Your task to perform on an android device: turn vacation reply on in the gmail app Image 0: 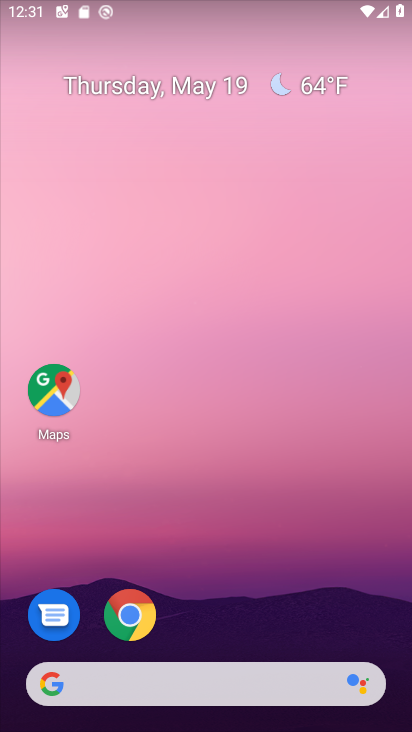
Step 0: drag from (354, 186) to (259, 208)
Your task to perform on an android device: turn vacation reply on in the gmail app Image 1: 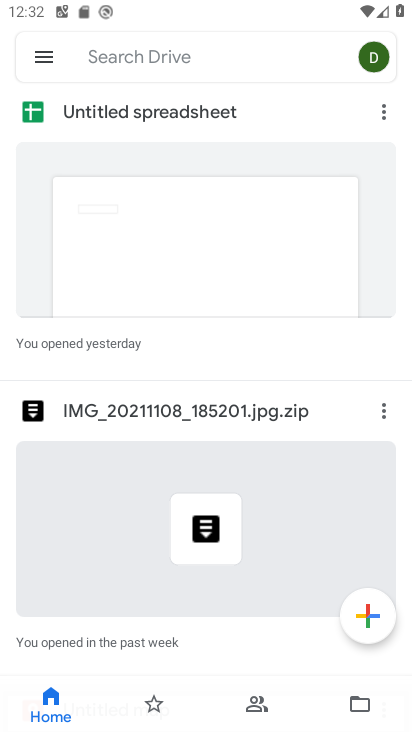
Step 1: press home button
Your task to perform on an android device: turn vacation reply on in the gmail app Image 2: 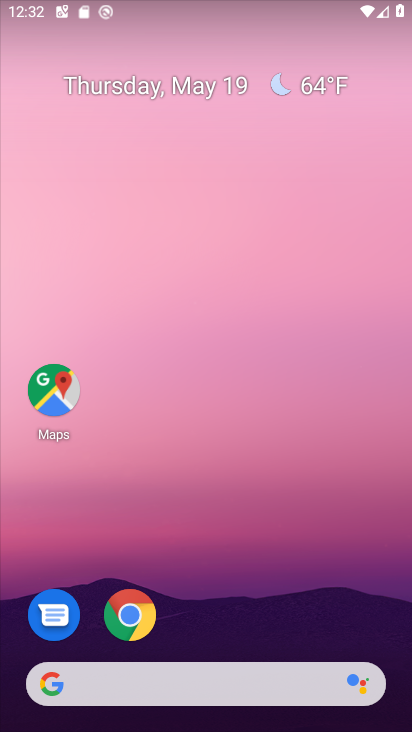
Step 2: drag from (237, 692) to (329, 93)
Your task to perform on an android device: turn vacation reply on in the gmail app Image 3: 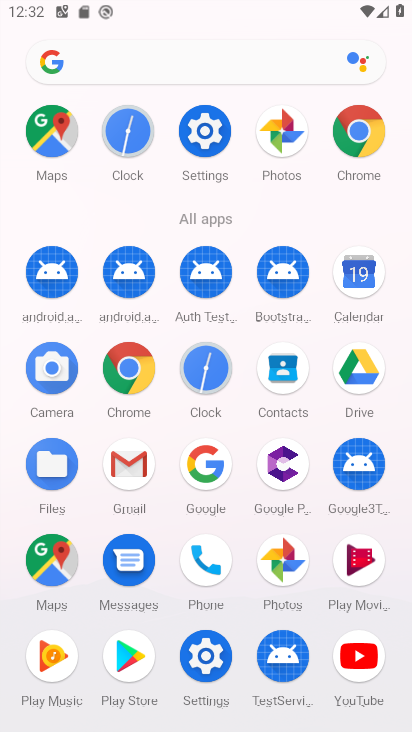
Step 3: click (136, 486)
Your task to perform on an android device: turn vacation reply on in the gmail app Image 4: 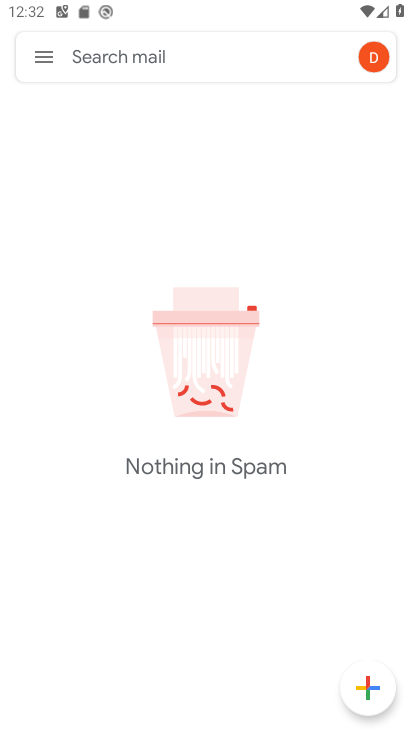
Step 4: click (38, 57)
Your task to perform on an android device: turn vacation reply on in the gmail app Image 5: 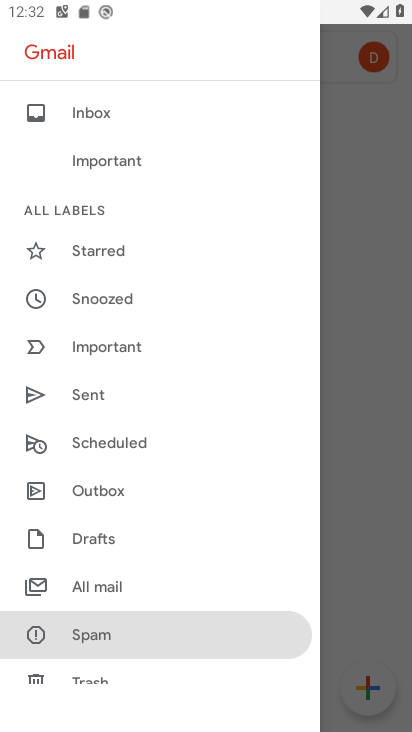
Step 5: drag from (102, 580) to (195, 316)
Your task to perform on an android device: turn vacation reply on in the gmail app Image 6: 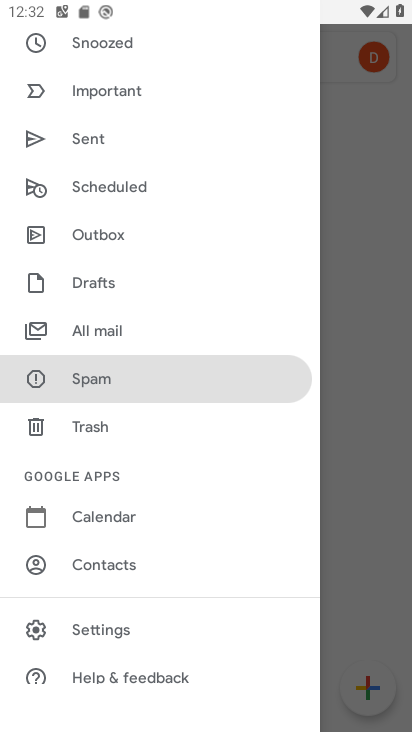
Step 6: click (88, 629)
Your task to perform on an android device: turn vacation reply on in the gmail app Image 7: 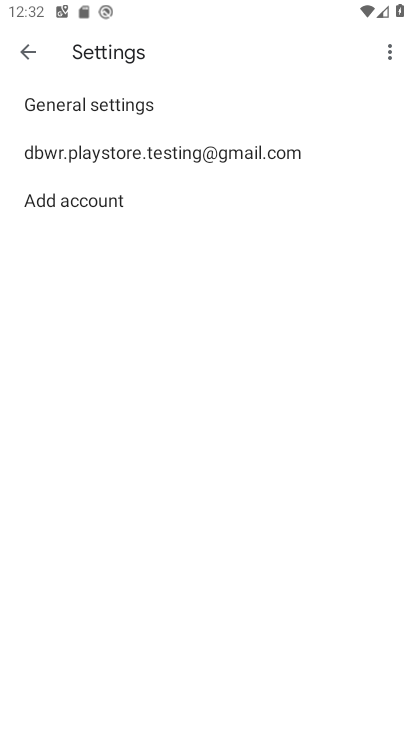
Step 7: click (103, 164)
Your task to perform on an android device: turn vacation reply on in the gmail app Image 8: 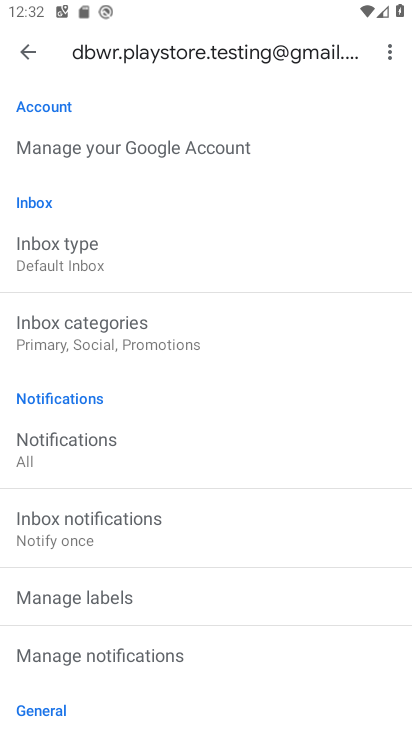
Step 8: drag from (107, 597) to (242, 234)
Your task to perform on an android device: turn vacation reply on in the gmail app Image 9: 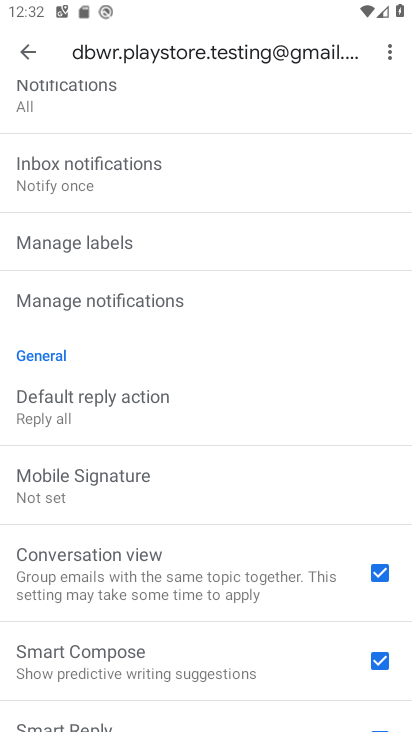
Step 9: drag from (115, 593) to (186, 383)
Your task to perform on an android device: turn vacation reply on in the gmail app Image 10: 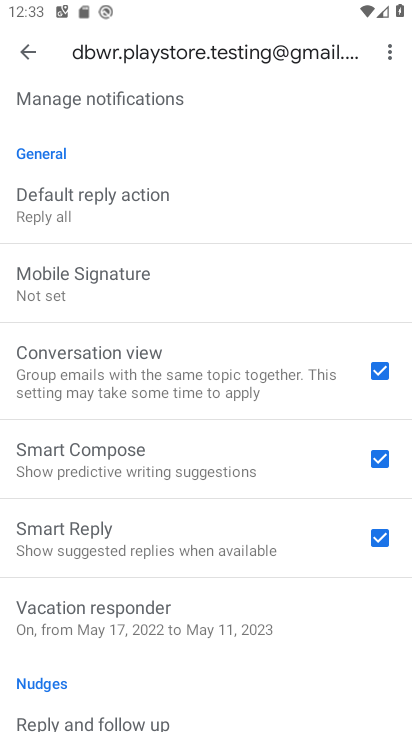
Step 10: click (105, 556)
Your task to perform on an android device: turn vacation reply on in the gmail app Image 11: 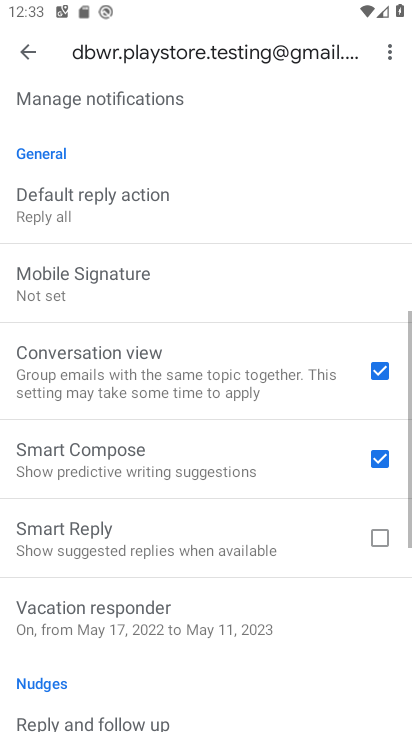
Step 11: click (111, 547)
Your task to perform on an android device: turn vacation reply on in the gmail app Image 12: 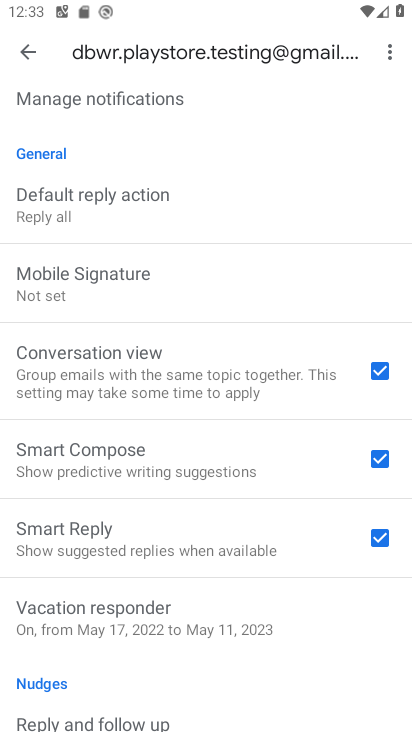
Step 12: task complete